Your task to perform on an android device: turn vacation reply on in the gmail app Image 0: 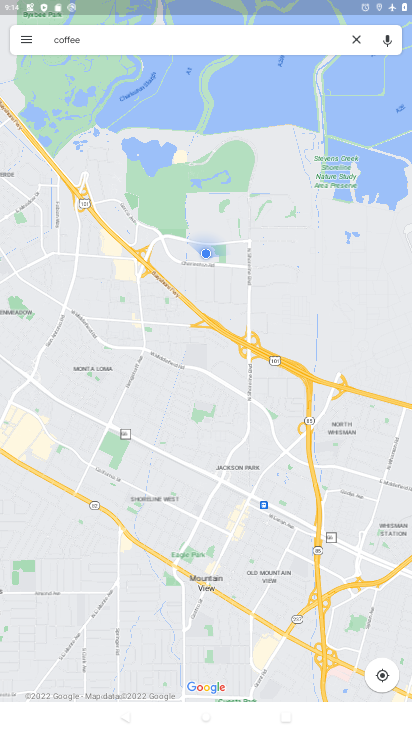
Step 0: press home button
Your task to perform on an android device: turn vacation reply on in the gmail app Image 1: 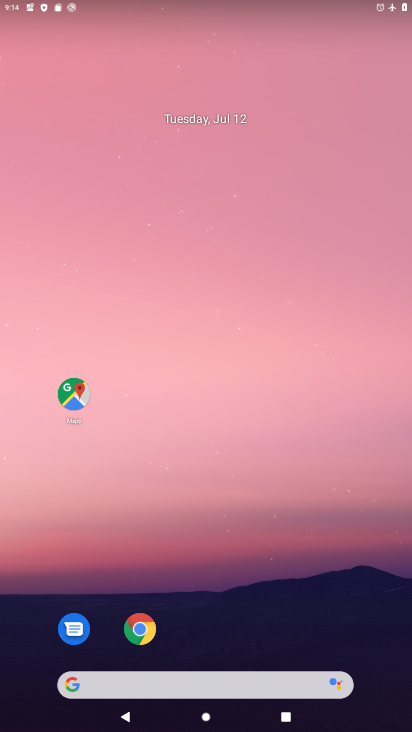
Step 1: drag from (245, 509) to (182, 40)
Your task to perform on an android device: turn vacation reply on in the gmail app Image 2: 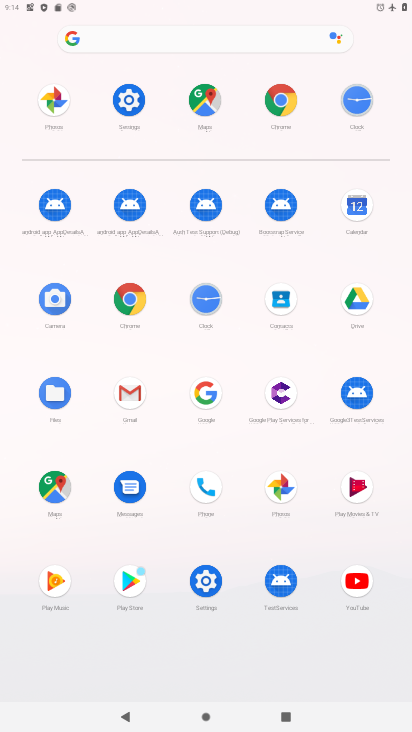
Step 2: click (129, 391)
Your task to perform on an android device: turn vacation reply on in the gmail app Image 3: 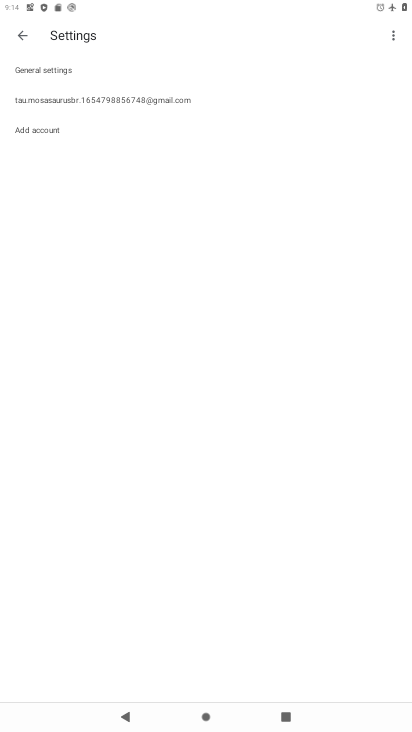
Step 3: click (63, 70)
Your task to perform on an android device: turn vacation reply on in the gmail app Image 4: 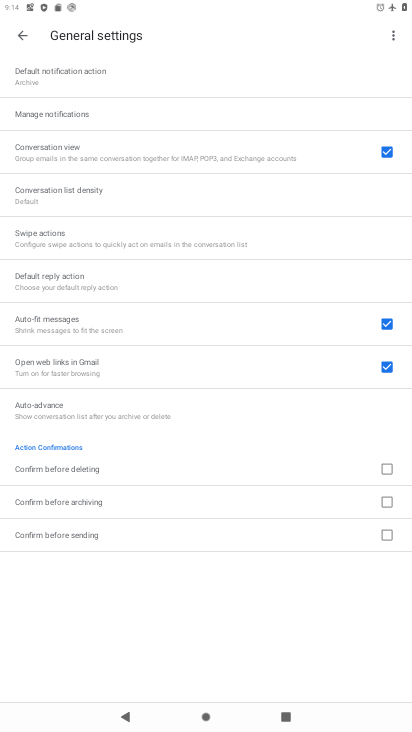
Step 4: click (20, 35)
Your task to perform on an android device: turn vacation reply on in the gmail app Image 5: 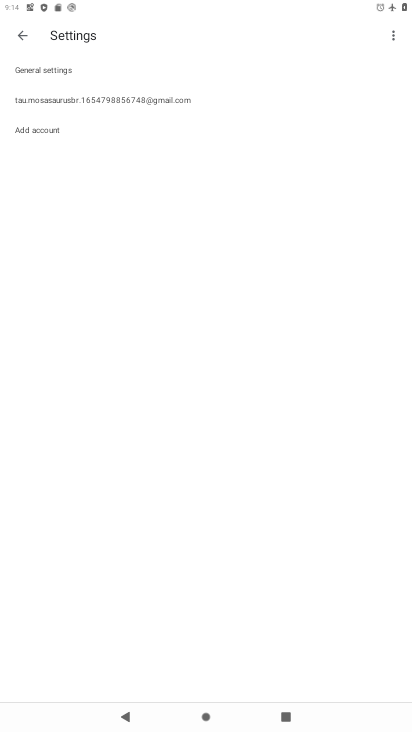
Step 5: click (94, 93)
Your task to perform on an android device: turn vacation reply on in the gmail app Image 6: 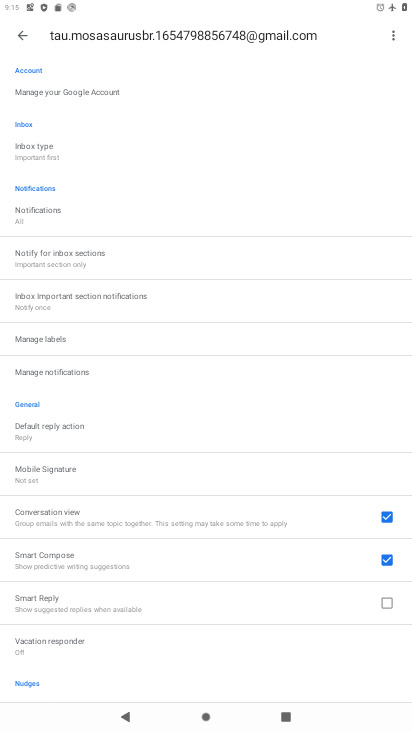
Step 6: drag from (144, 585) to (232, 171)
Your task to perform on an android device: turn vacation reply on in the gmail app Image 7: 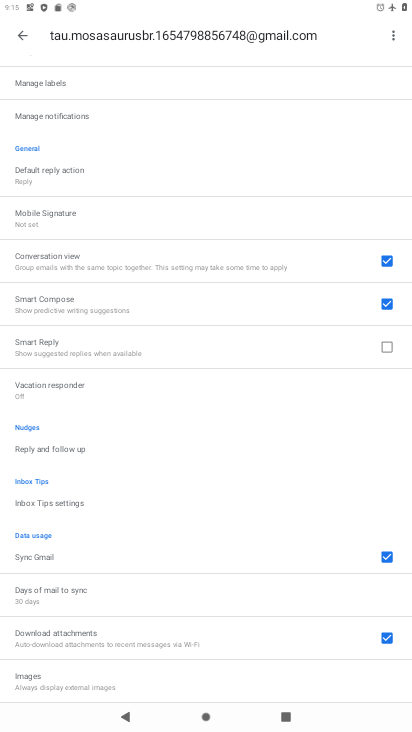
Step 7: click (98, 385)
Your task to perform on an android device: turn vacation reply on in the gmail app Image 8: 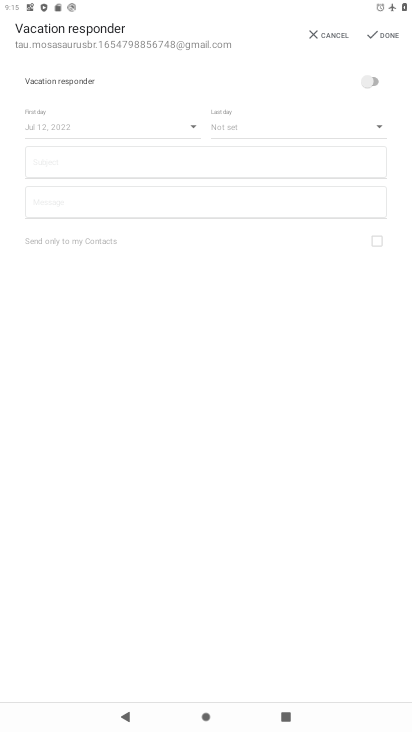
Step 8: click (375, 76)
Your task to perform on an android device: turn vacation reply on in the gmail app Image 9: 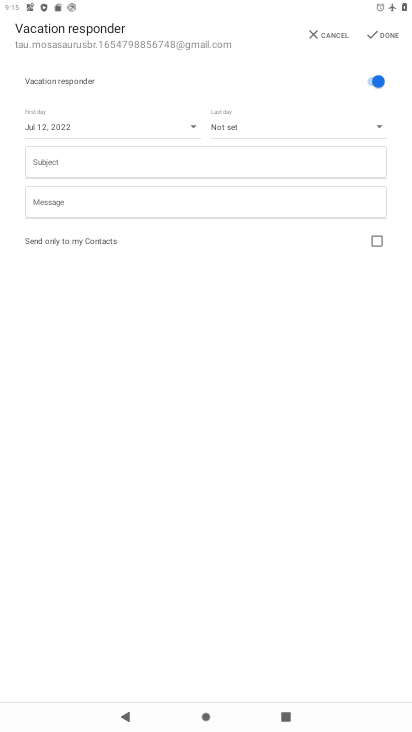
Step 9: task complete